Your task to perform on an android device: Open CNN.com Image 0: 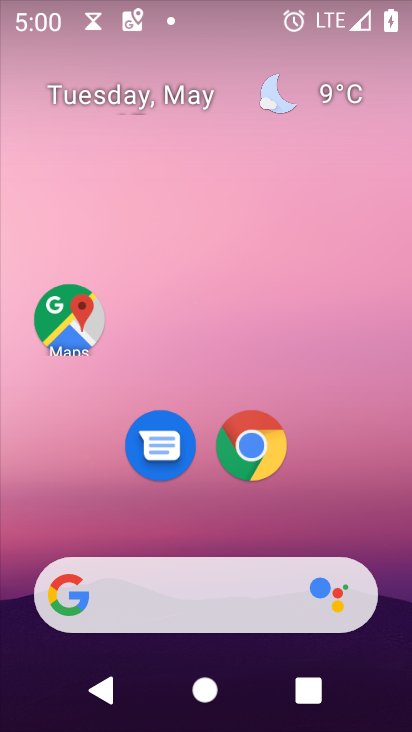
Step 0: drag from (297, 536) to (260, 75)
Your task to perform on an android device: Open CNN.com Image 1: 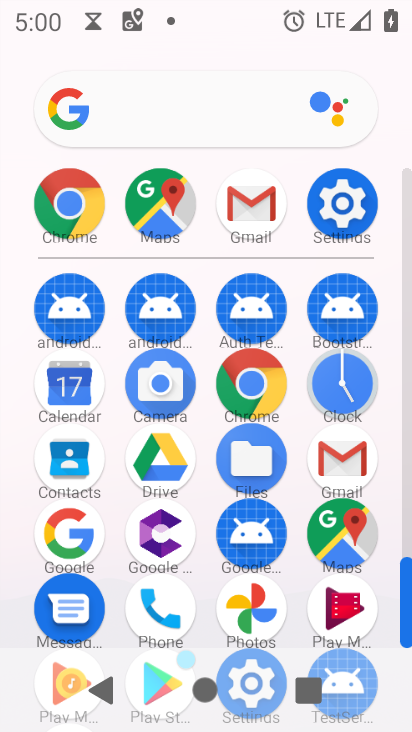
Step 1: click (251, 377)
Your task to perform on an android device: Open CNN.com Image 2: 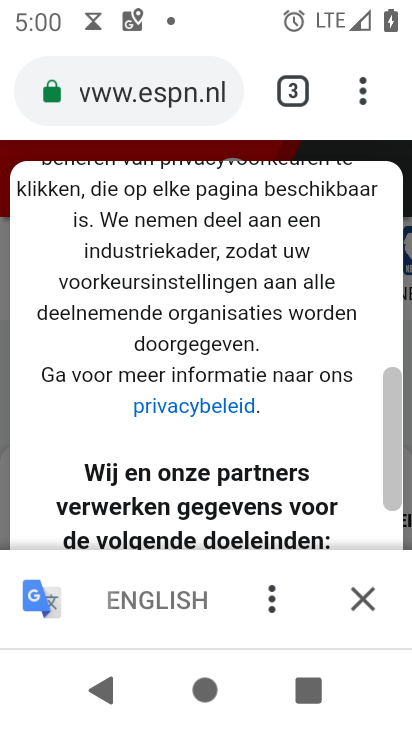
Step 2: click (156, 104)
Your task to perform on an android device: Open CNN.com Image 3: 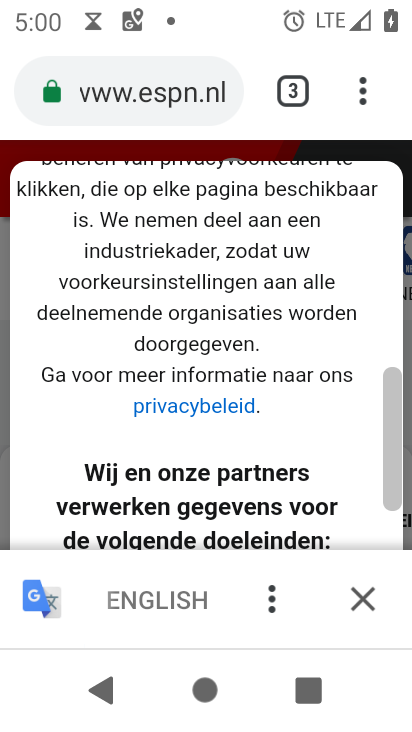
Step 3: click (156, 104)
Your task to perform on an android device: Open CNN.com Image 4: 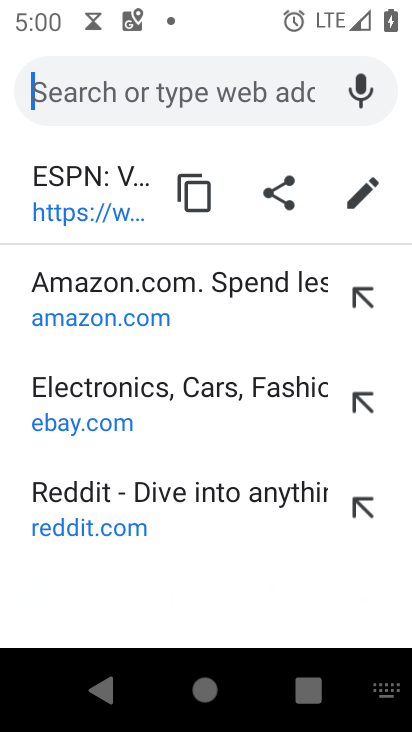
Step 4: type "cnn.com"
Your task to perform on an android device: Open CNN.com Image 5: 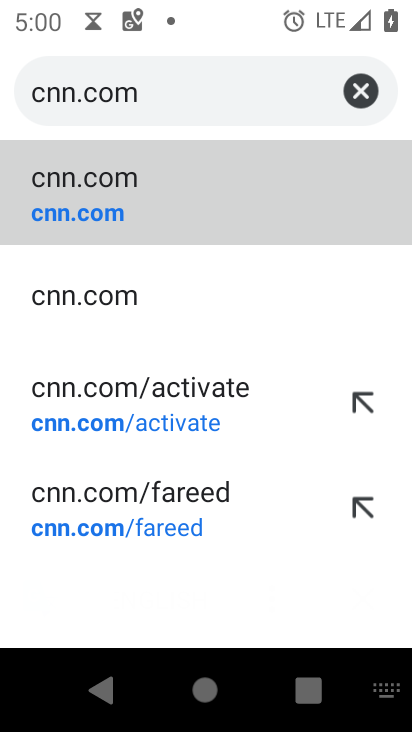
Step 5: click (176, 184)
Your task to perform on an android device: Open CNN.com Image 6: 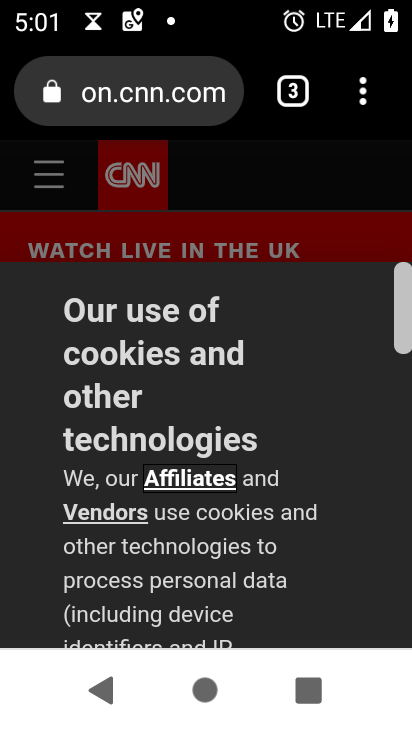
Step 6: task complete